Your task to perform on an android device: add a label to a message in the gmail app Image 0: 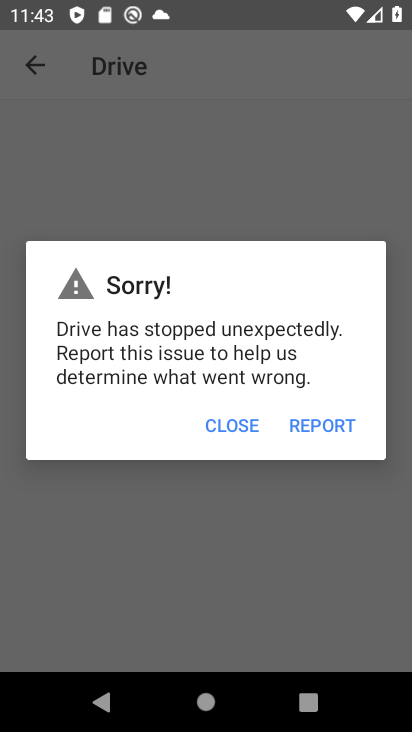
Step 0: press home button
Your task to perform on an android device: add a label to a message in the gmail app Image 1: 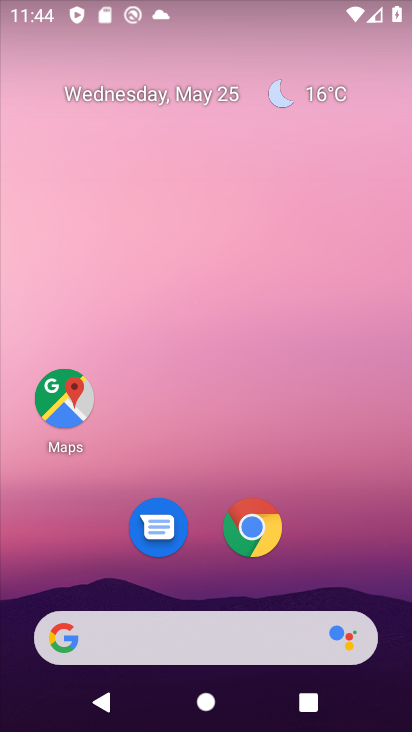
Step 1: drag from (318, 574) to (338, 237)
Your task to perform on an android device: add a label to a message in the gmail app Image 2: 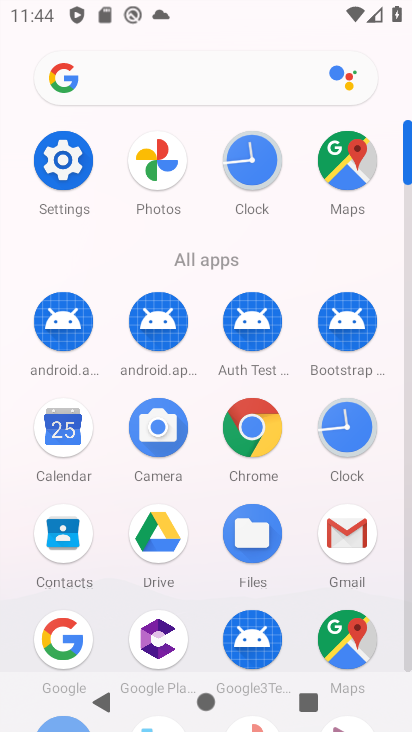
Step 2: click (356, 550)
Your task to perform on an android device: add a label to a message in the gmail app Image 3: 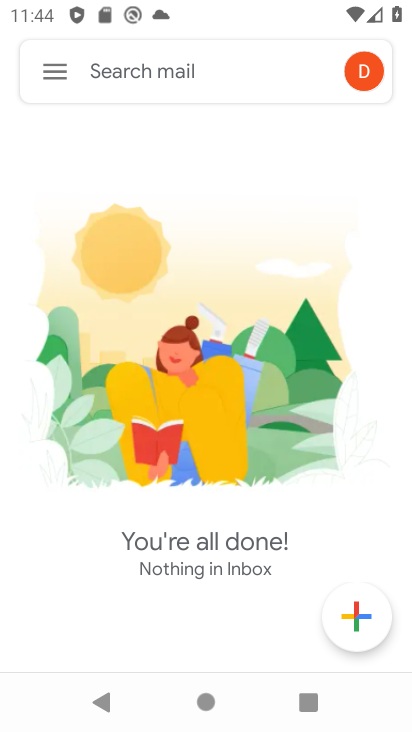
Step 3: task complete